Your task to perform on an android device: turn off javascript in the chrome app Image 0: 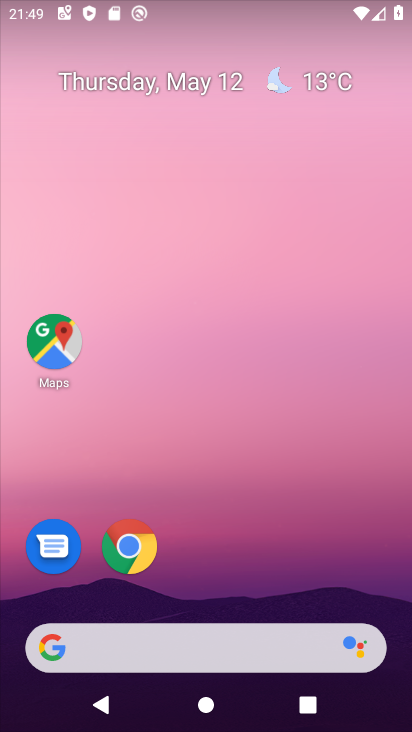
Step 0: click (135, 537)
Your task to perform on an android device: turn off javascript in the chrome app Image 1: 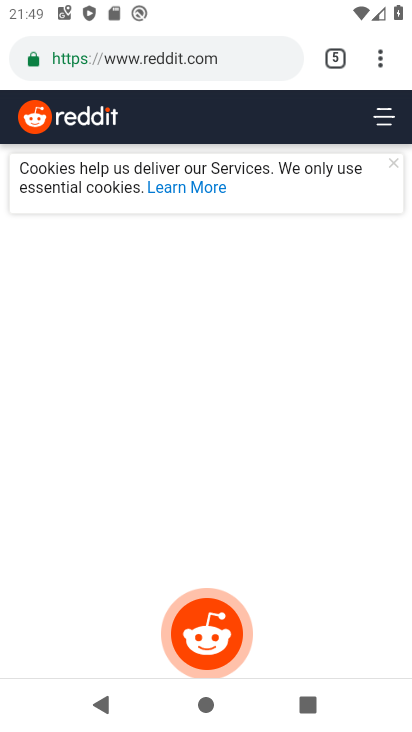
Step 1: drag from (377, 55) to (198, 582)
Your task to perform on an android device: turn off javascript in the chrome app Image 2: 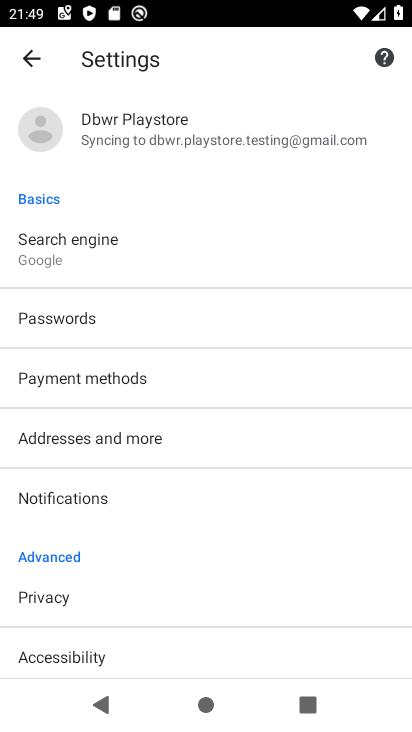
Step 2: drag from (197, 617) to (217, 281)
Your task to perform on an android device: turn off javascript in the chrome app Image 3: 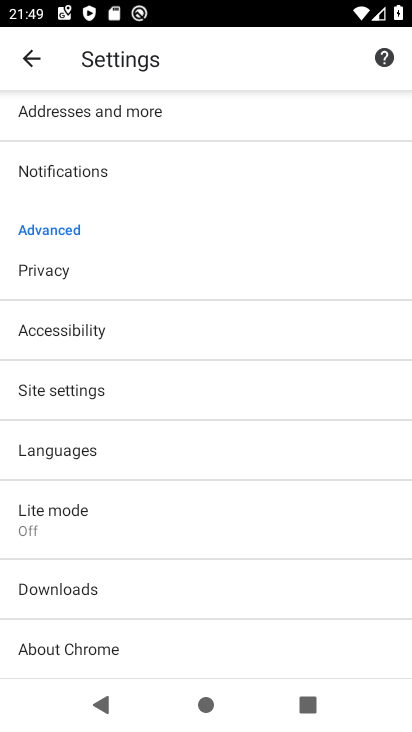
Step 3: click (69, 392)
Your task to perform on an android device: turn off javascript in the chrome app Image 4: 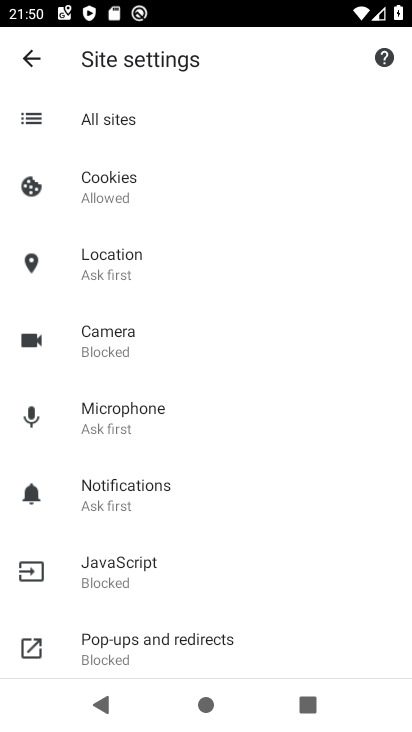
Step 4: click (117, 558)
Your task to perform on an android device: turn off javascript in the chrome app Image 5: 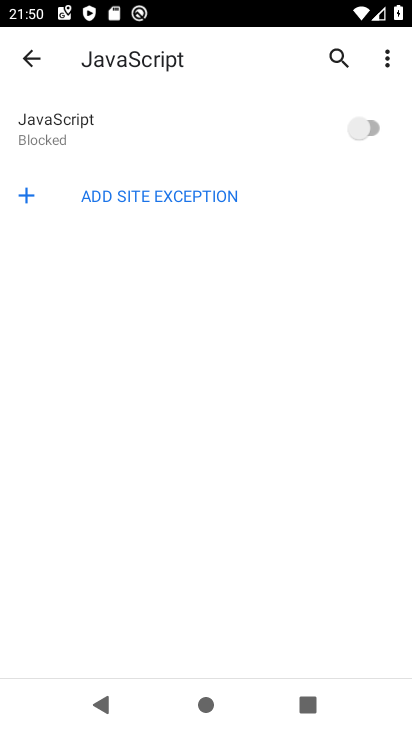
Step 5: task complete